Your task to perform on an android device: see creations saved in the google photos Image 0: 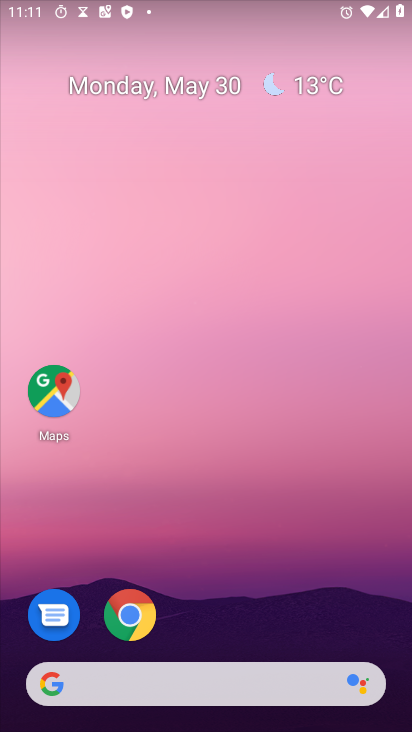
Step 0: drag from (276, 610) to (307, 48)
Your task to perform on an android device: see creations saved in the google photos Image 1: 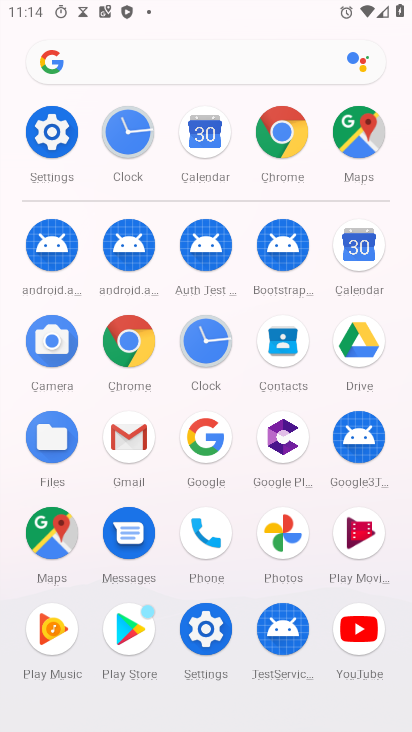
Step 1: click (284, 521)
Your task to perform on an android device: see creations saved in the google photos Image 2: 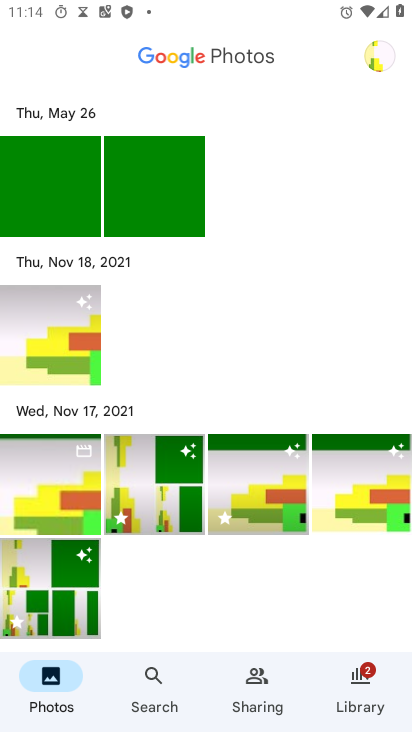
Step 2: task complete